Your task to perform on an android device: turn on showing notifications on the lock screen Image 0: 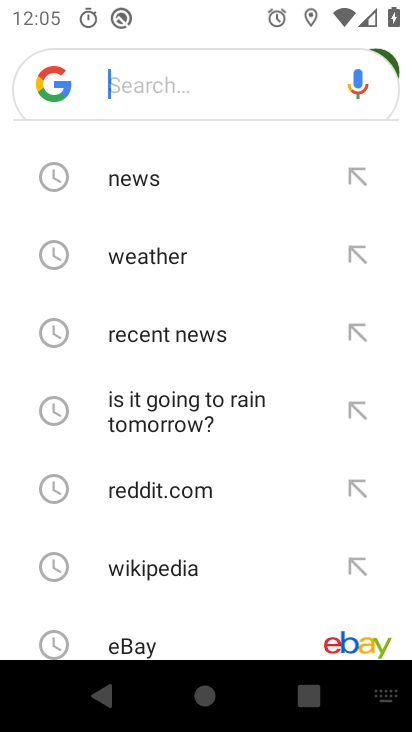
Step 0: press home button
Your task to perform on an android device: turn on showing notifications on the lock screen Image 1: 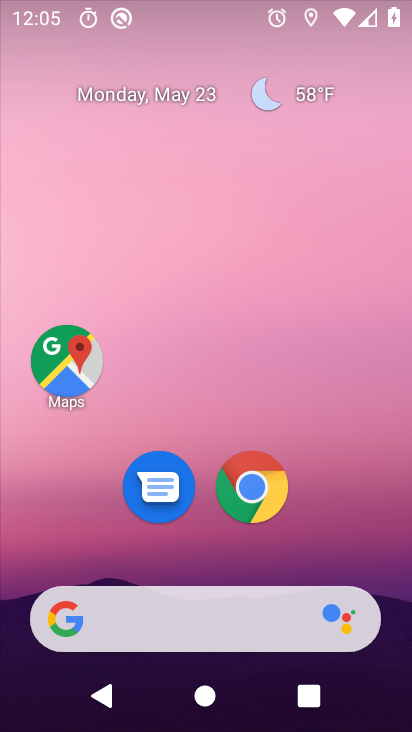
Step 1: drag from (311, 418) to (299, 161)
Your task to perform on an android device: turn on showing notifications on the lock screen Image 2: 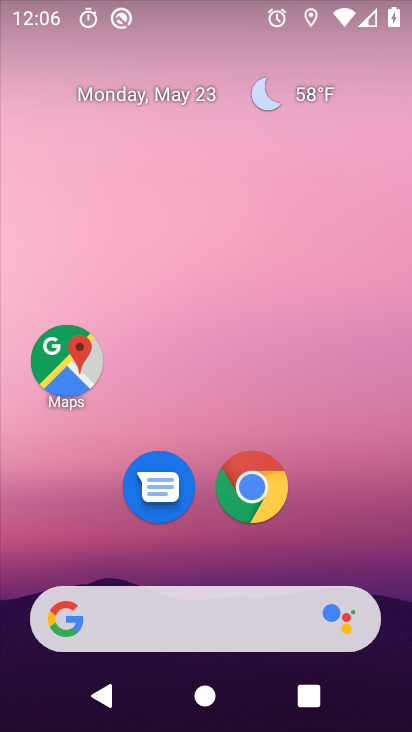
Step 2: drag from (361, 517) to (363, 188)
Your task to perform on an android device: turn on showing notifications on the lock screen Image 3: 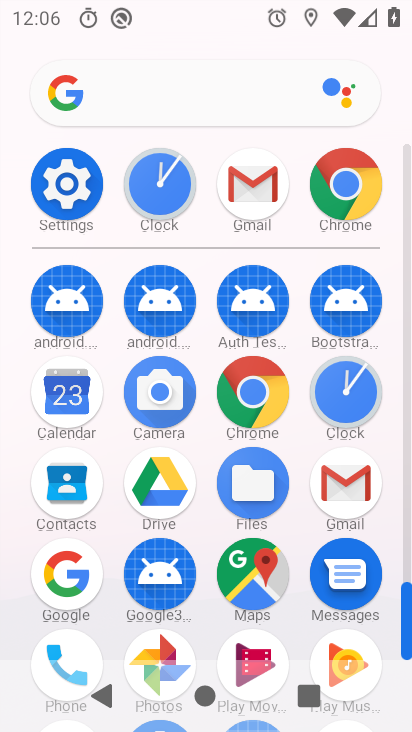
Step 3: click (43, 172)
Your task to perform on an android device: turn on showing notifications on the lock screen Image 4: 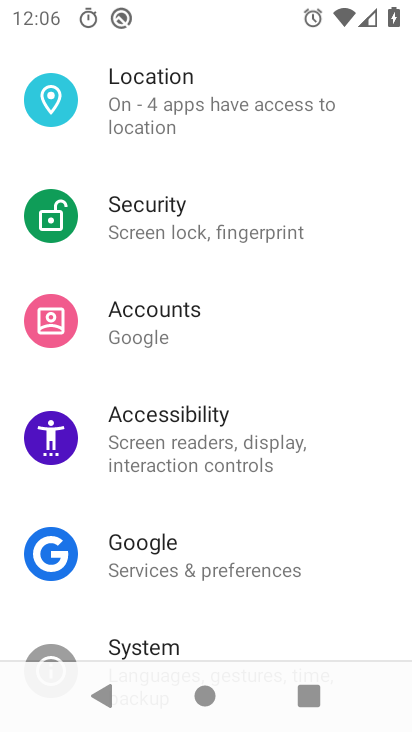
Step 4: drag from (215, 516) to (271, 249)
Your task to perform on an android device: turn on showing notifications on the lock screen Image 5: 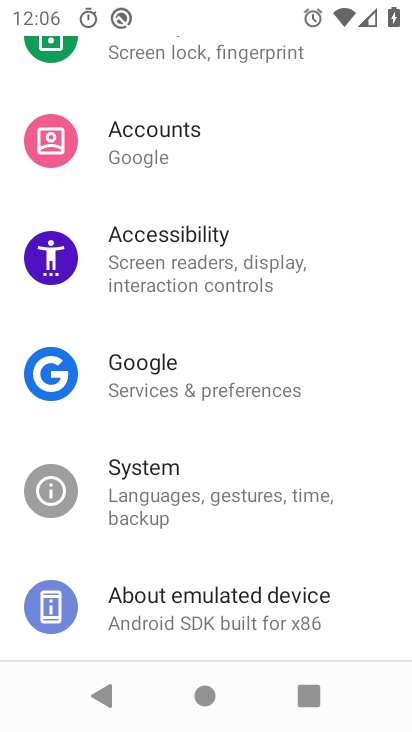
Step 5: drag from (264, 155) to (225, 576)
Your task to perform on an android device: turn on showing notifications on the lock screen Image 6: 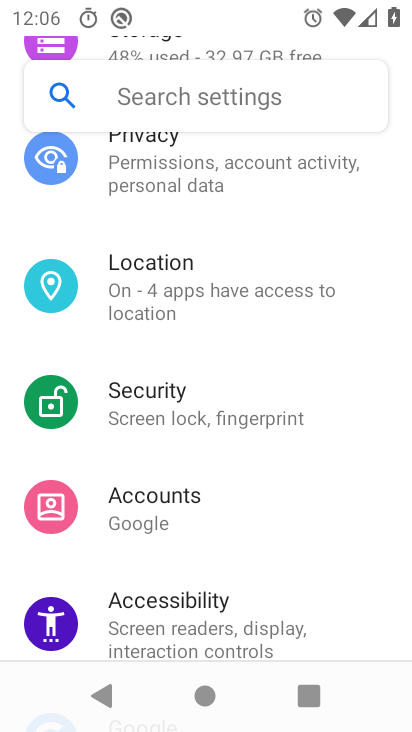
Step 6: drag from (190, 164) to (152, 564)
Your task to perform on an android device: turn on showing notifications on the lock screen Image 7: 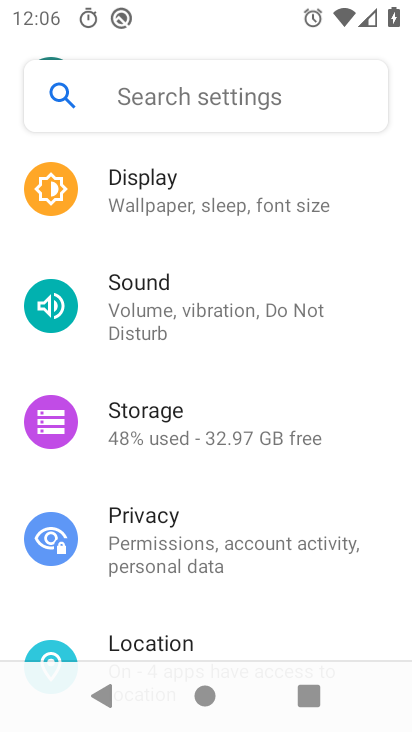
Step 7: drag from (159, 207) to (188, 570)
Your task to perform on an android device: turn on showing notifications on the lock screen Image 8: 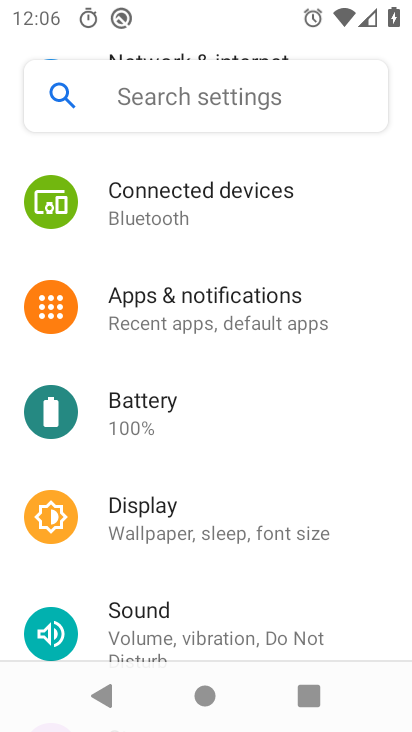
Step 8: click (197, 300)
Your task to perform on an android device: turn on showing notifications on the lock screen Image 9: 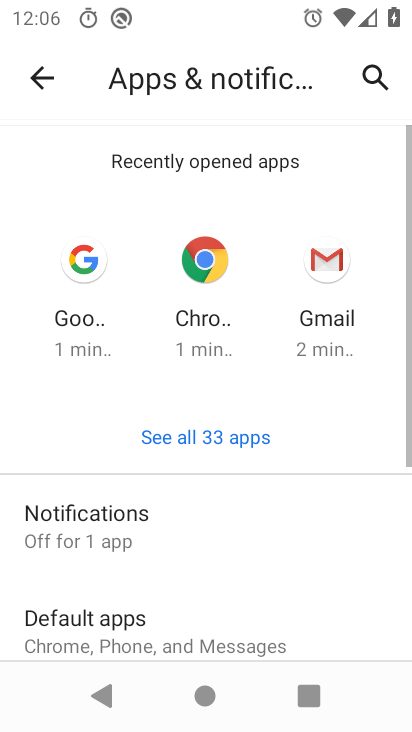
Step 9: click (83, 527)
Your task to perform on an android device: turn on showing notifications on the lock screen Image 10: 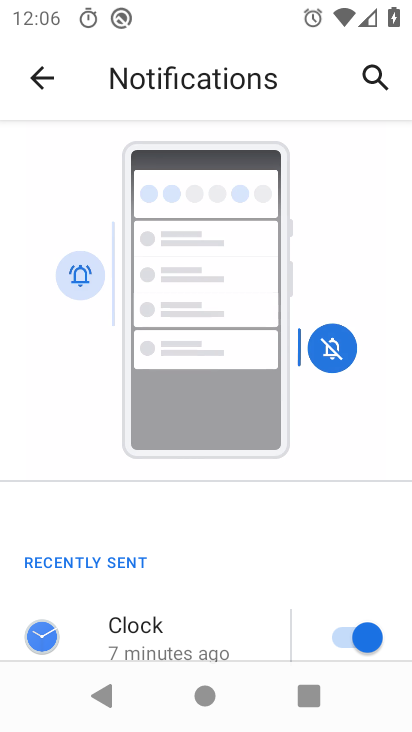
Step 10: drag from (212, 599) to (253, 255)
Your task to perform on an android device: turn on showing notifications on the lock screen Image 11: 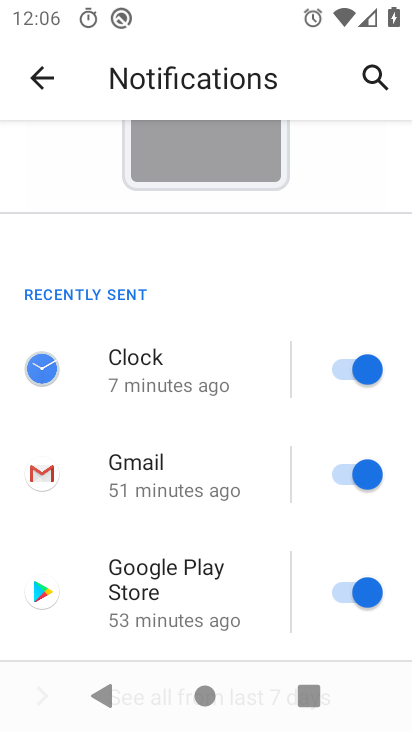
Step 11: drag from (227, 590) to (251, 305)
Your task to perform on an android device: turn on showing notifications on the lock screen Image 12: 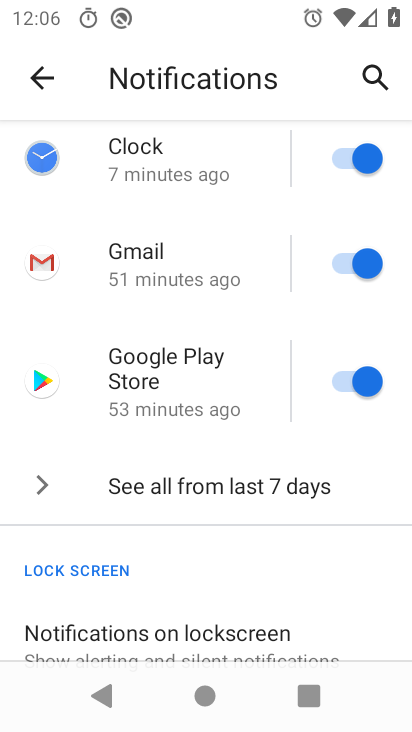
Step 12: drag from (252, 611) to (248, 302)
Your task to perform on an android device: turn on showing notifications on the lock screen Image 13: 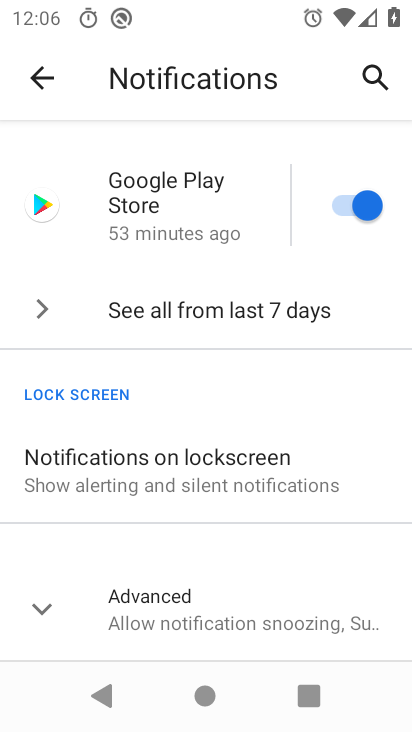
Step 13: click (192, 475)
Your task to perform on an android device: turn on showing notifications on the lock screen Image 14: 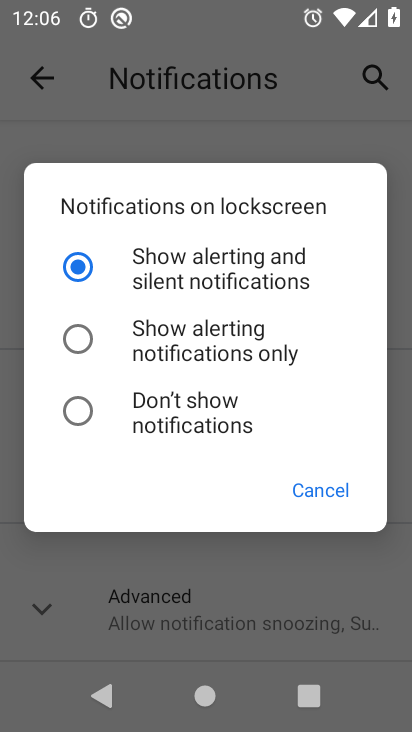
Step 14: task complete